Your task to perform on an android device: search for starred emails in the gmail app Image 0: 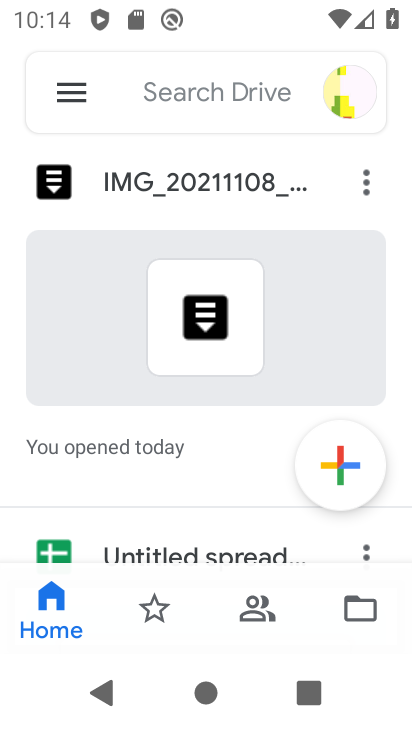
Step 0: press home button
Your task to perform on an android device: search for starred emails in the gmail app Image 1: 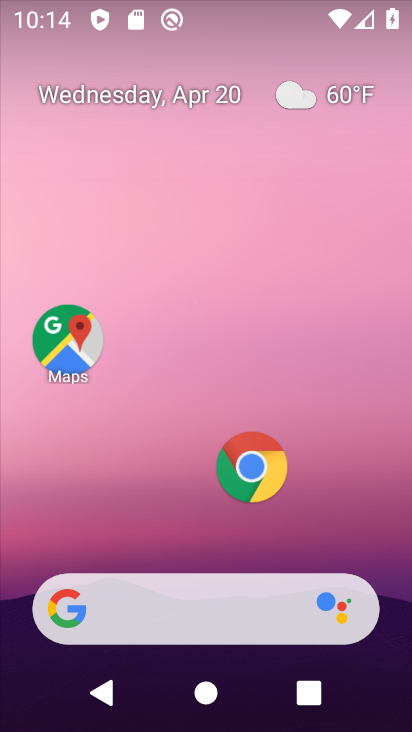
Step 1: drag from (340, 555) to (338, 14)
Your task to perform on an android device: search for starred emails in the gmail app Image 2: 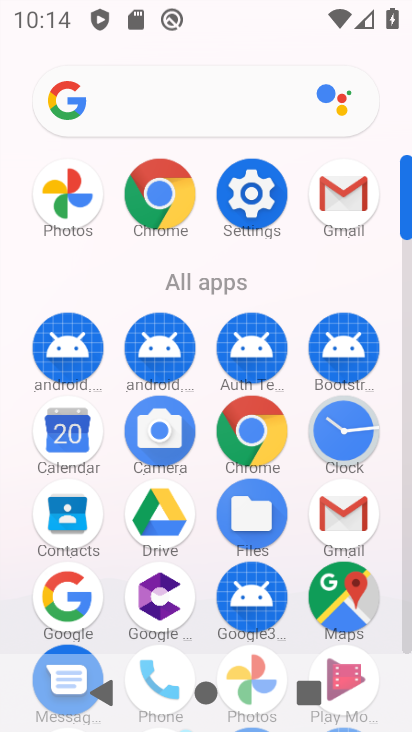
Step 2: click (350, 523)
Your task to perform on an android device: search for starred emails in the gmail app Image 3: 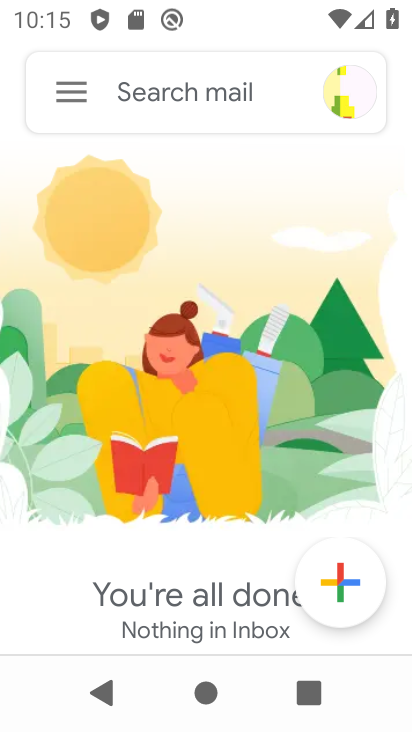
Step 3: click (76, 105)
Your task to perform on an android device: search for starred emails in the gmail app Image 4: 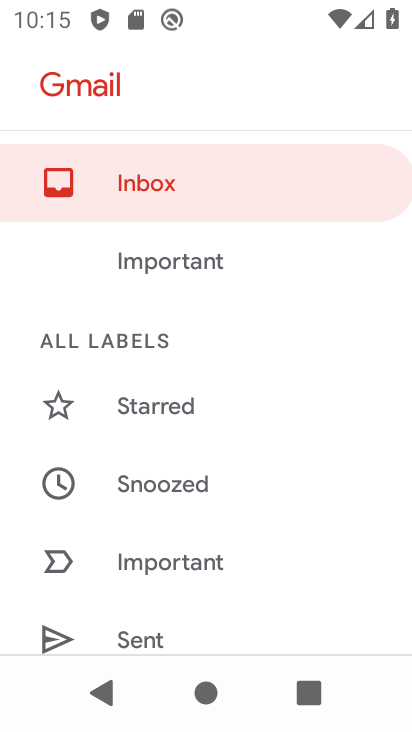
Step 4: click (191, 411)
Your task to perform on an android device: search for starred emails in the gmail app Image 5: 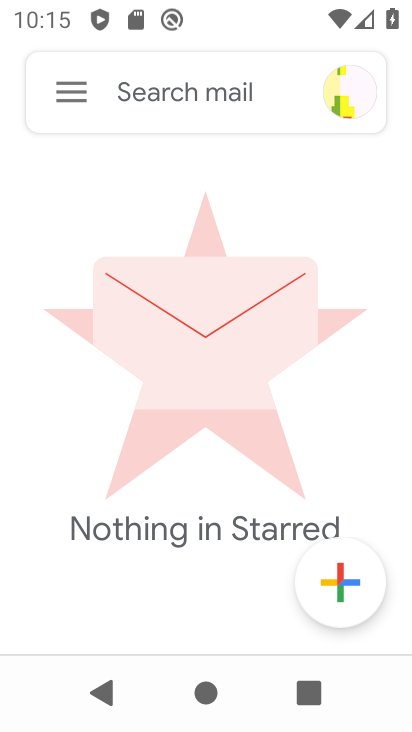
Step 5: task complete